Your task to perform on an android device: toggle pop-ups in chrome Image 0: 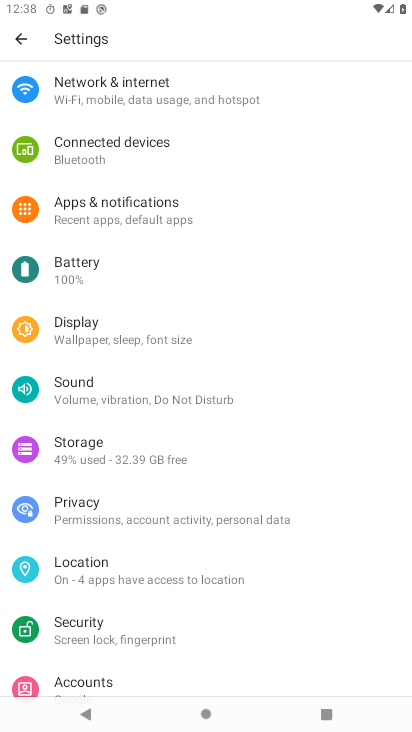
Step 0: press home button
Your task to perform on an android device: toggle pop-ups in chrome Image 1: 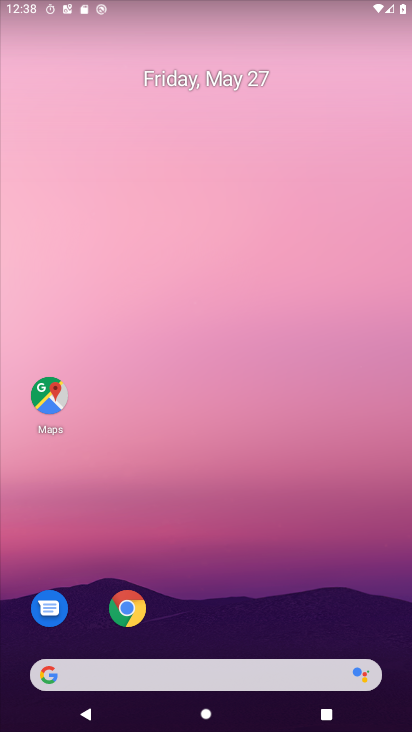
Step 1: click (123, 607)
Your task to perform on an android device: toggle pop-ups in chrome Image 2: 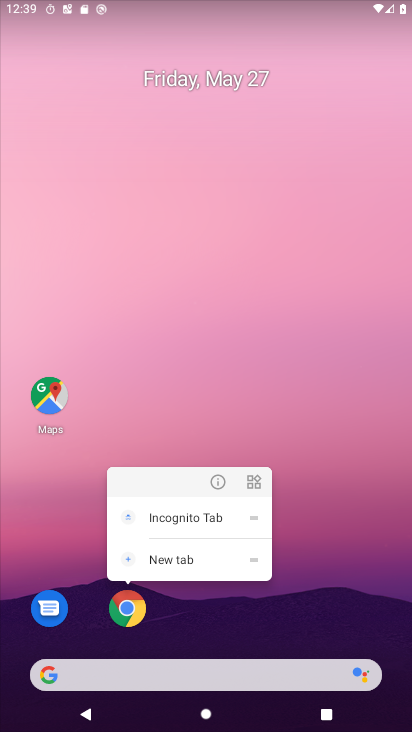
Step 2: press back button
Your task to perform on an android device: toggle pop-ups in chrome Image 3: 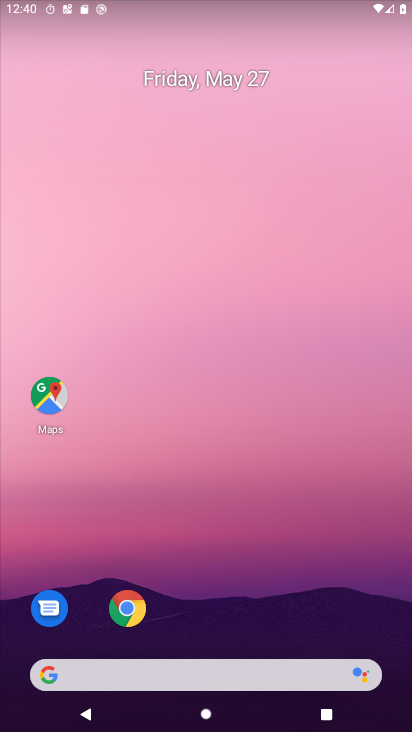
Step 3: click (128, 615)
Your task to perform on an android device: toggle pop-ups in chrome Image 4: 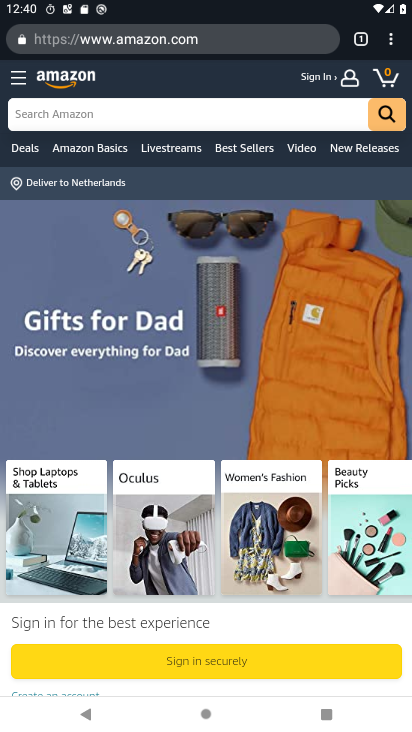
Step 4: click (389, 35)
Your task to perform on an android device: toggle pop-ups in chrome Image 5: 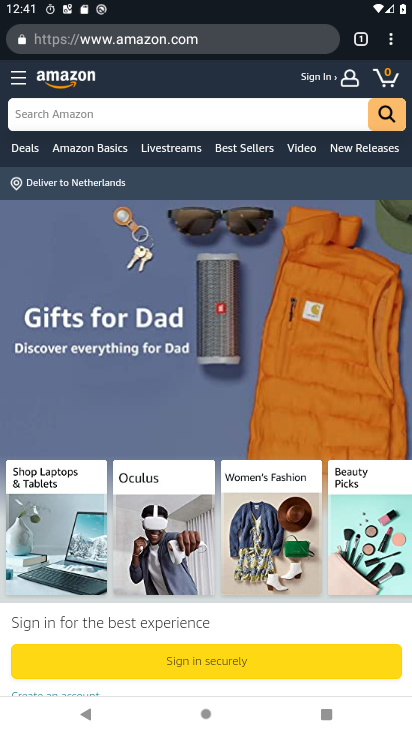
Step 5: click (387, 35)
Your task to perform on an android device: toggle pop-ups in chrome Image 6: 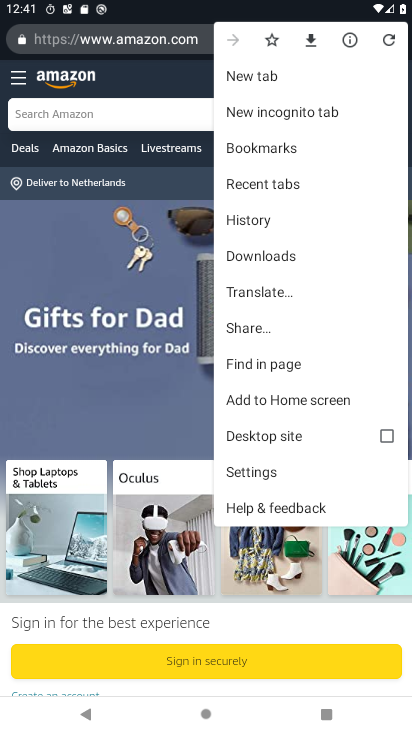
Step 6: click (235, 472)
Your task to perform on an android device: toggle pop-ups in chrome Image 7: 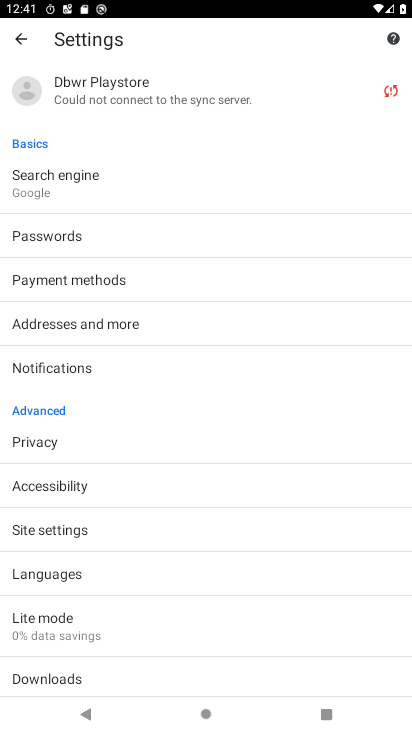
Step 7: click (47, 529)
Your task to perform on an android device: toggle pop-ups in chrome Image 8: 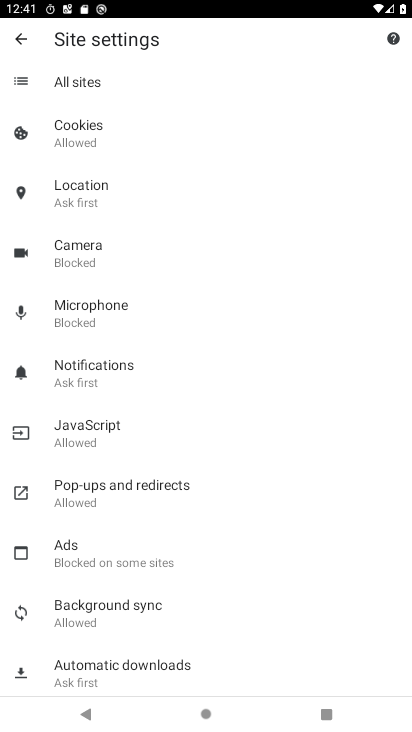
Step 8: click (90, 492)
Your task to perform on an android device: toggle pop-ups in chrome Image 9: 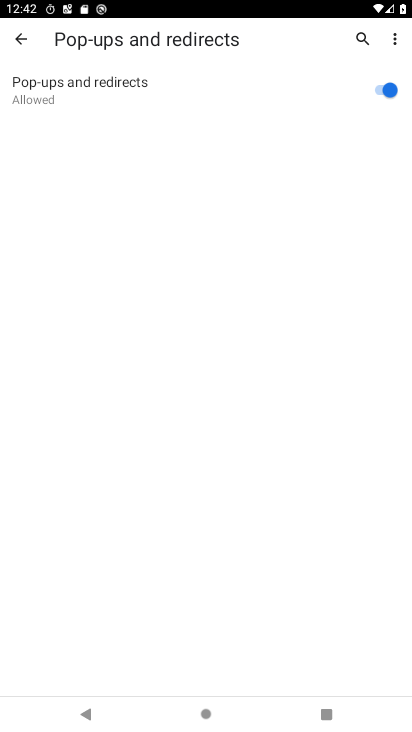
Step 9: click (376, 88)
Your task to perform on an android device: toggle pop-ups in chrome Image 10: 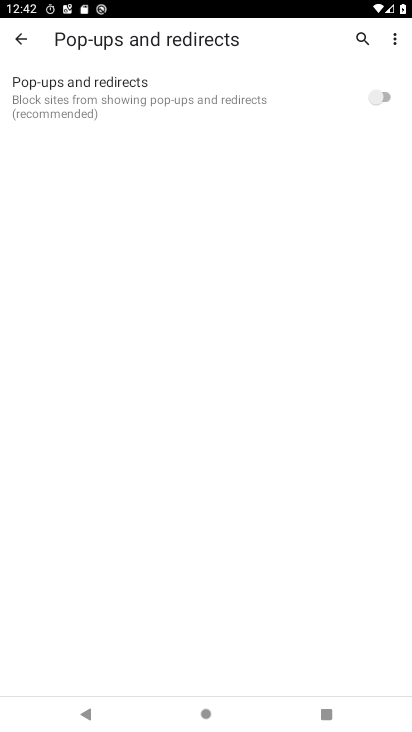
Step 10: task complete